Your task to perform on an android device: Go to CNN.com Image 0: 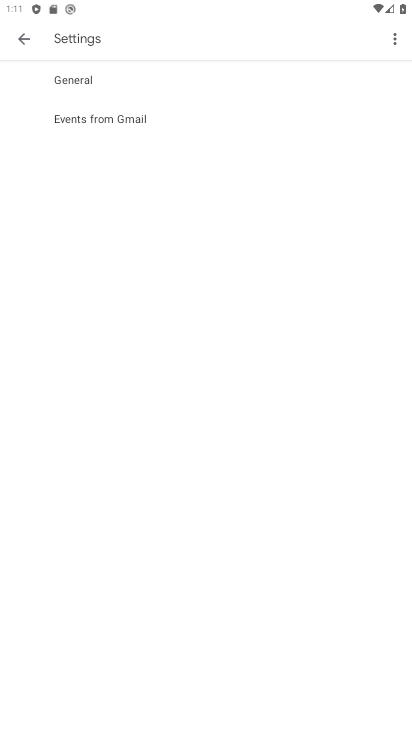
Step 0: press back button
Your task to perform on an android device: Go to CNN.com Image 1: 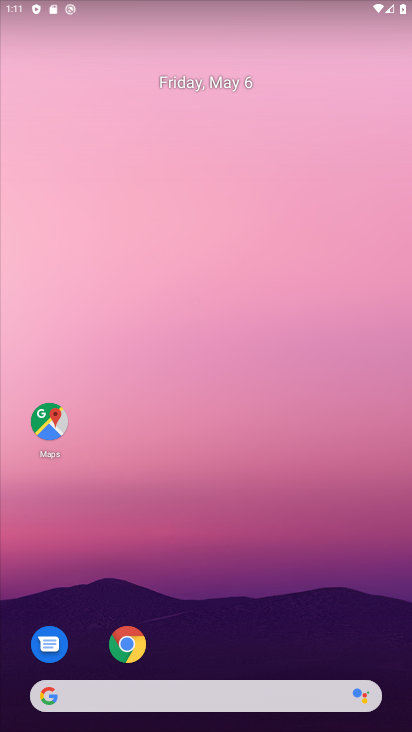
Step 1: click (126, 647)
Your task to perform on an android device: Go to CNN.com Image 2: 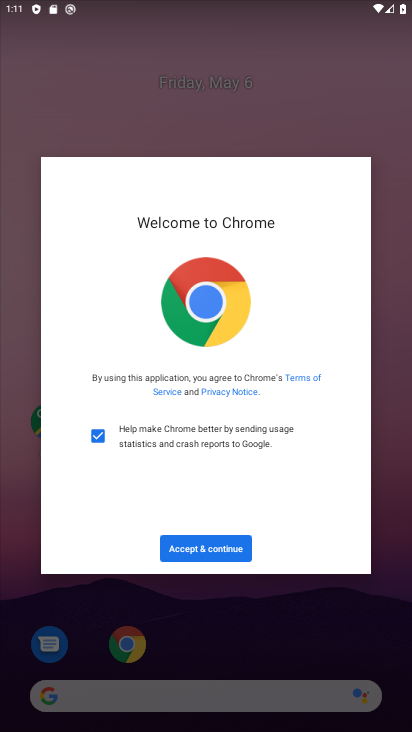
Step 2: click (203, 541)
Your task to perform on an android device: Go to CNN.com Image 3: 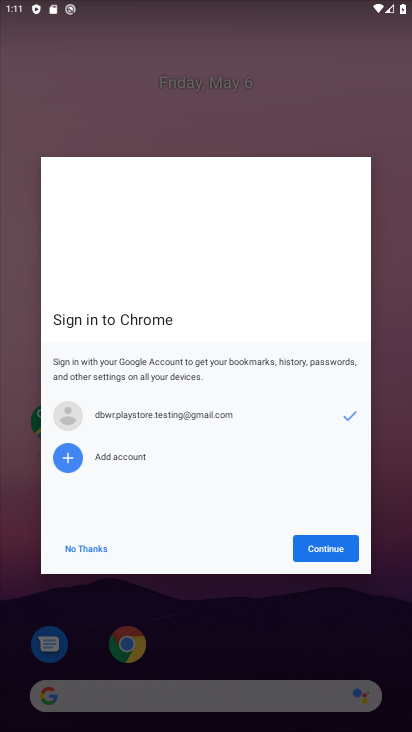
Step 3: click (317, 546)
Your task to perform on an android device: Go to CNN.com Image 4: 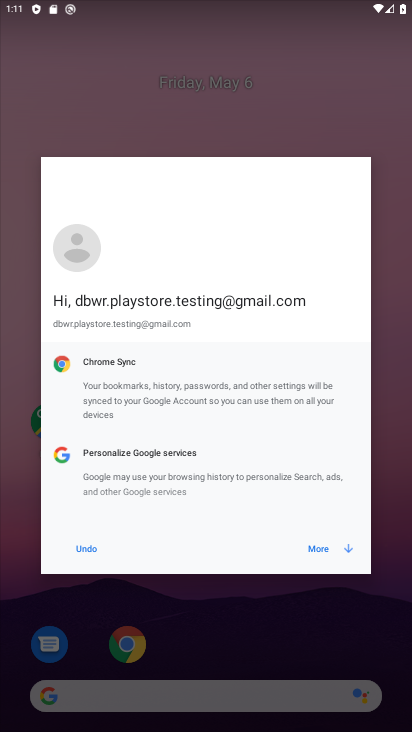
Step 4: click (317, 546)
Your task to perform on an android device: Go to CNN.com Image 5: 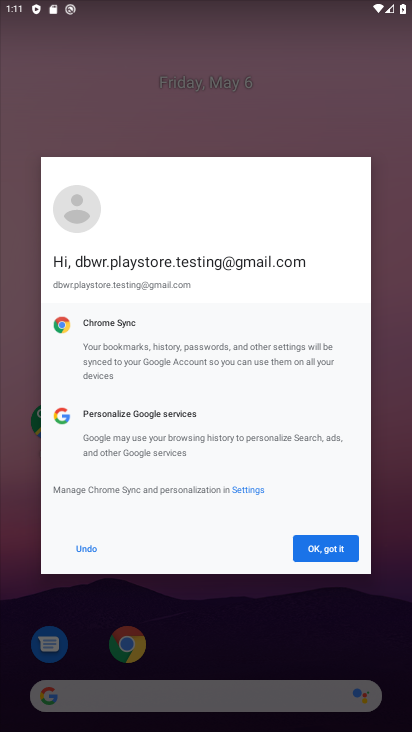
Step 5: click (317, 546)
Your task to perform on an android device: Go to CNN.com Image 6: 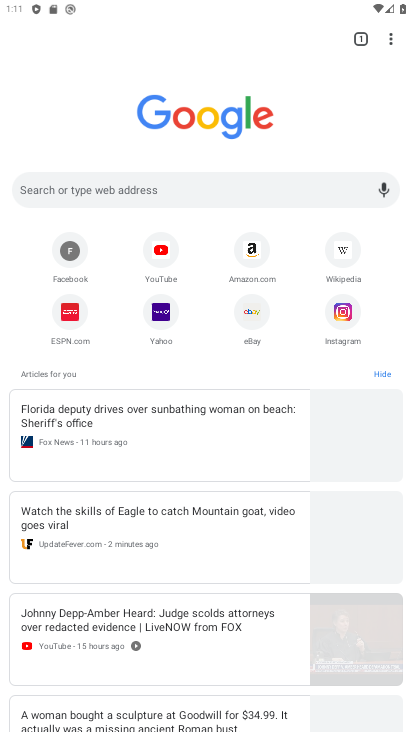
Step 6: click (127, 191)
Your task to perform on an android device: Go to CNN.com Image 7: 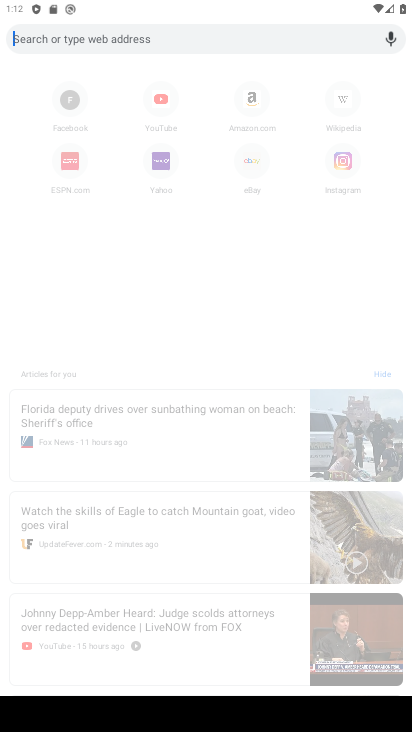
Step 7: type "cnn.com"
Your task to perform on an android device: Go to CNN.com Image 8: 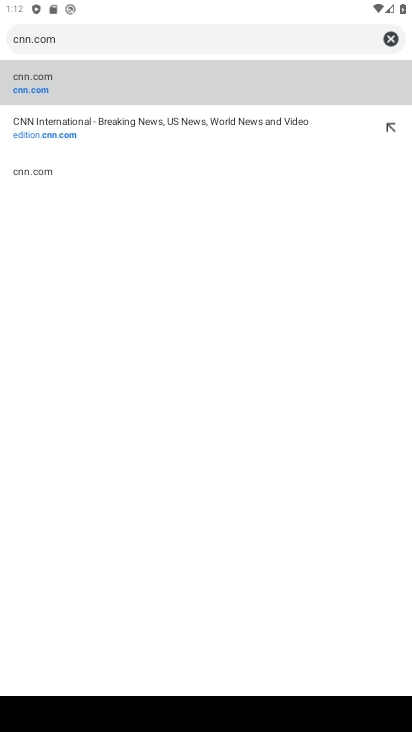
Step 8: click (87, 81)
Your task to perform on an android device: Go to CNN.com Image 9: 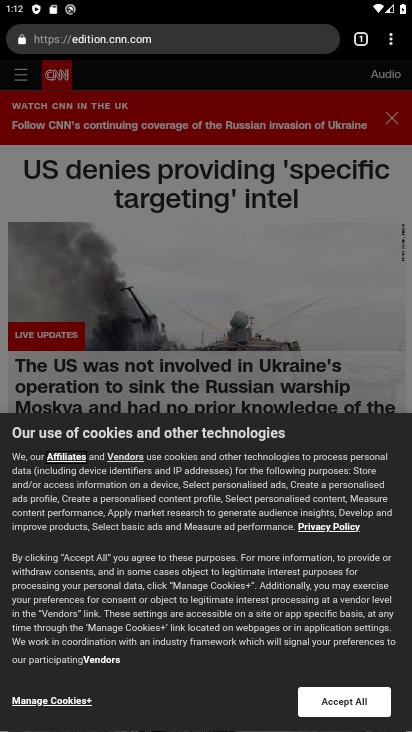
Step 9: task complete